Your task to perform on an android device: Show me the alarms in the clock app Image 0: 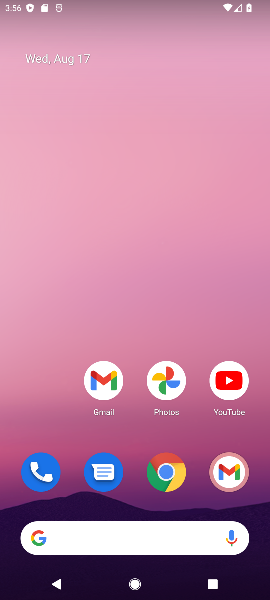
Step 0: drag from (132, 439) to (167, 115)
Your task to perform on an android device: Show me the alarms in the clock app Image 1: 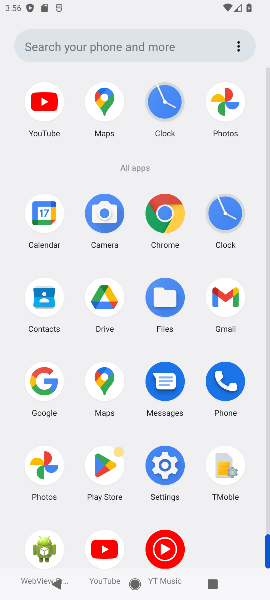
Step 1: click (216, 230)
Your task to perform on an android device: Show me the alarms in the clock app Image 2: 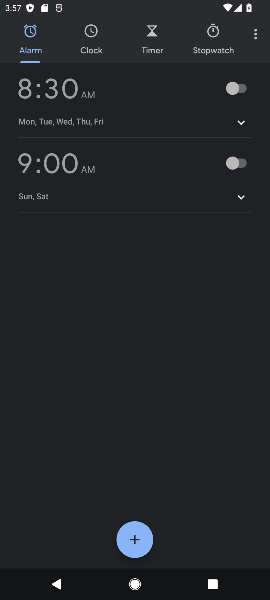
Step 2: task complete